Your task to perform on an android device: set default search engine in the chrome app Image 0: 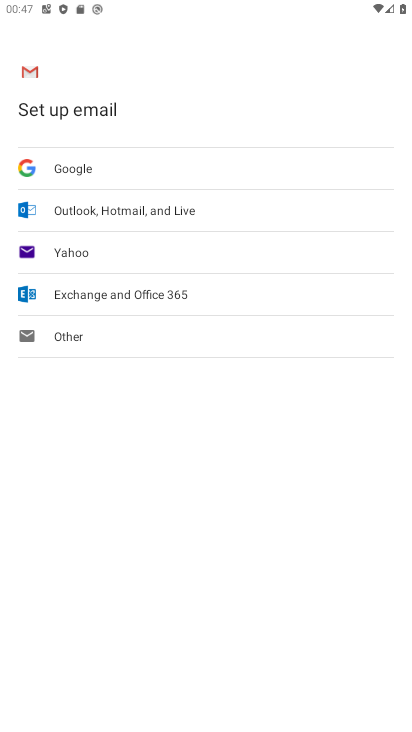
Step 0: press back button
Your task to perform on an android device: set default search engine in the chrome app Image 1: 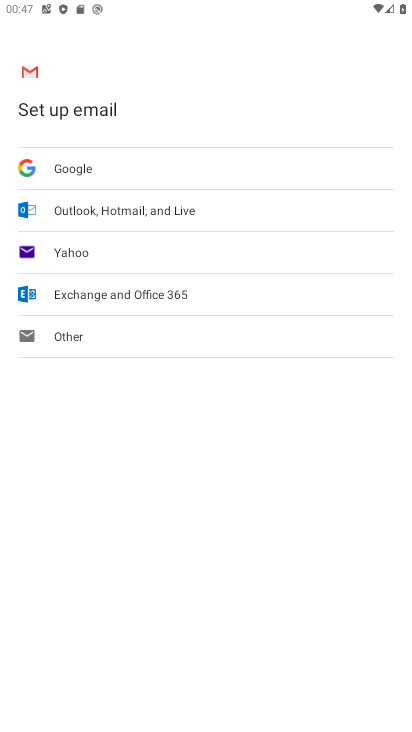
Step 1: press back button
Your task to perform on an android device: set default search engine in the chrome app Image 2: 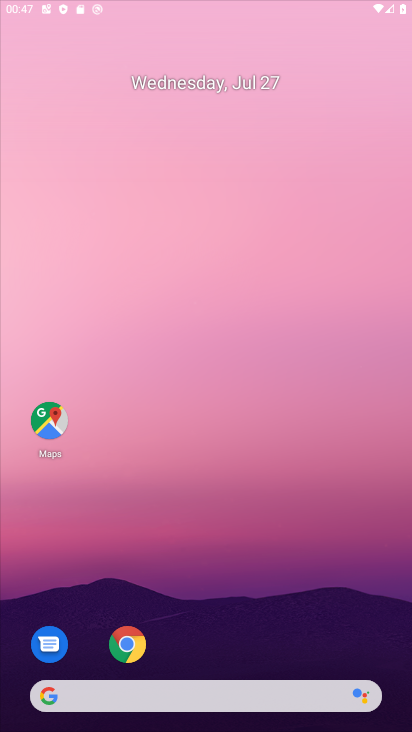
Step 2: press back button
Your task to perform on an android device: set default search engine in the chrome app Image 3: 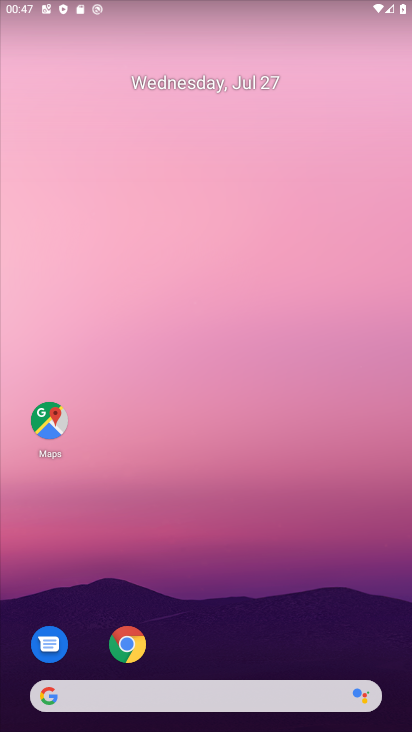
Step 3: drag from (265, 270) to (266, 184)
Your task to perform on an android device: set default search engine in the chrome app Image 4: 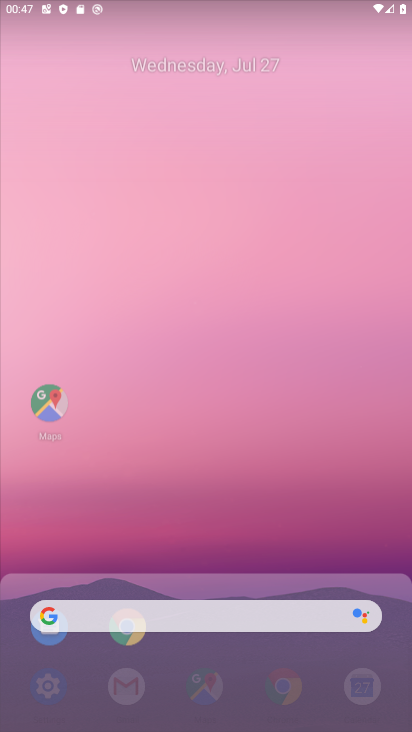
Step 4: drag from (309, 504) to (258, 186)
Your task to perform on an android device: set default search engine in the chrome app Image 5: 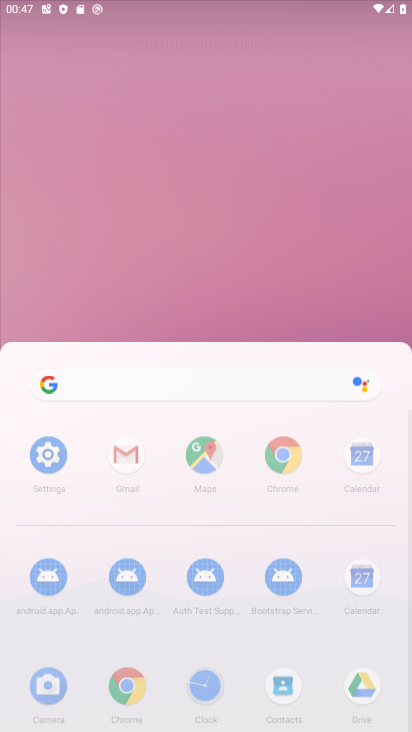
Step 5: drag from (250, 469) to (190, 158)
Your task to perform on an android device: set default search engine in the chrome app Image 6: 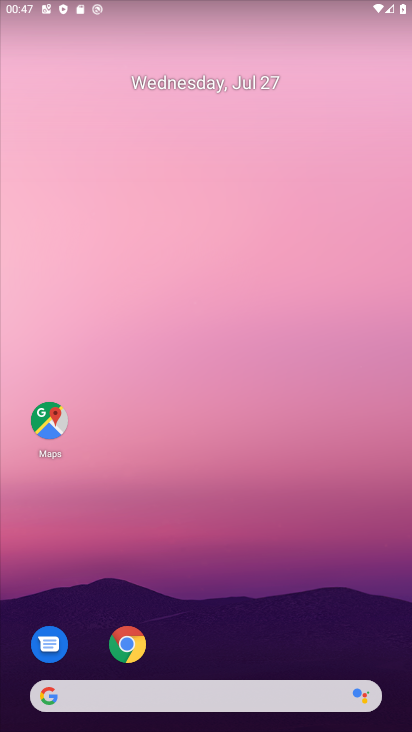
Step 6: drag from (256, 562) to (232, 303)
Your task to perform on an android device: set default search engine in the chrome app Image 7: 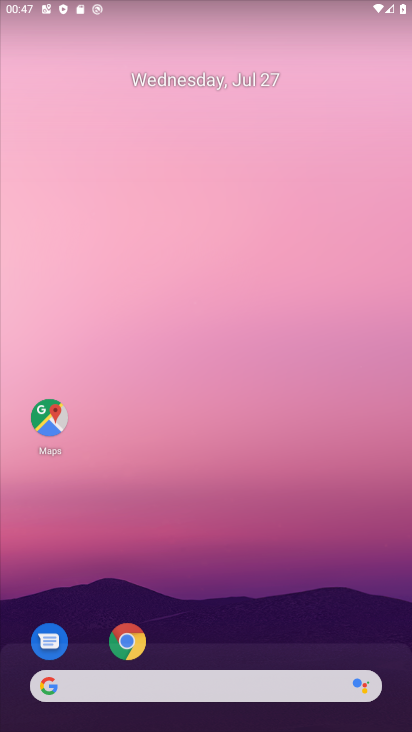
Step 7: drag from (281, 671) to (243, 338)
Your task to perform on an android device: set default search engine in the chrome app Image 8: 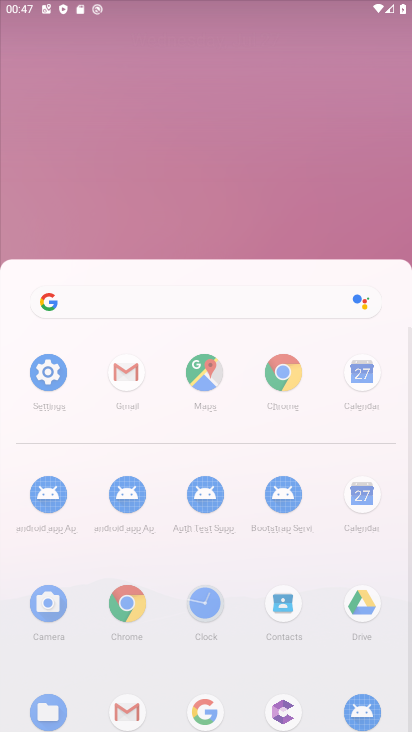
Step 8: drag from (238, 605) to (218, 177)
Your task to perform on an android device: set default search engine in the chrome app Image 9: 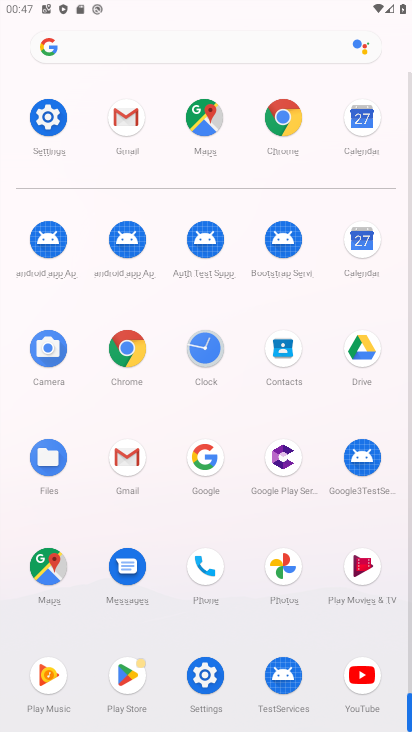
Step 9: drag from (225, 502) to (225, 261)
Your task to perform on an android device: set default search engine in the chrome app Image 10: 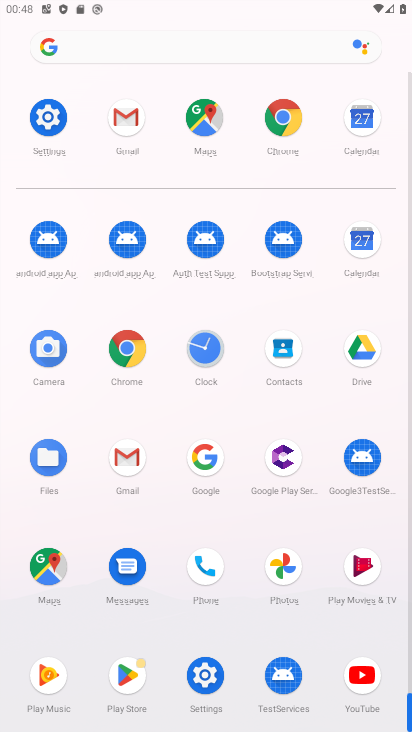
Step 10: click (282, 124)
Your task to perform on an android device: set default search engine in the chrome app Image 11: 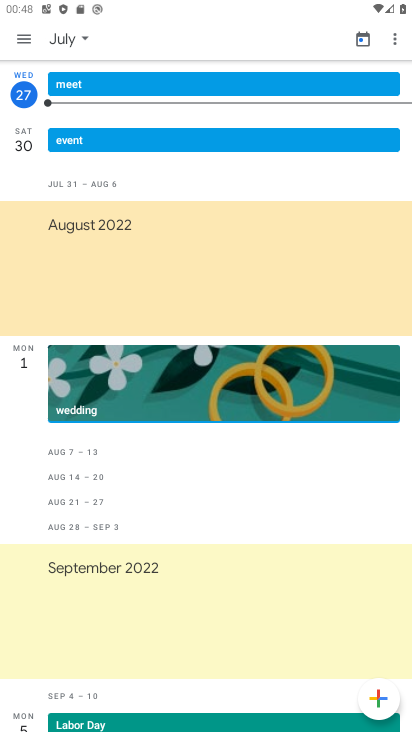
Step 11: press back button
Your task to perform on an android device: set default search engine in the chrome app Image 12: 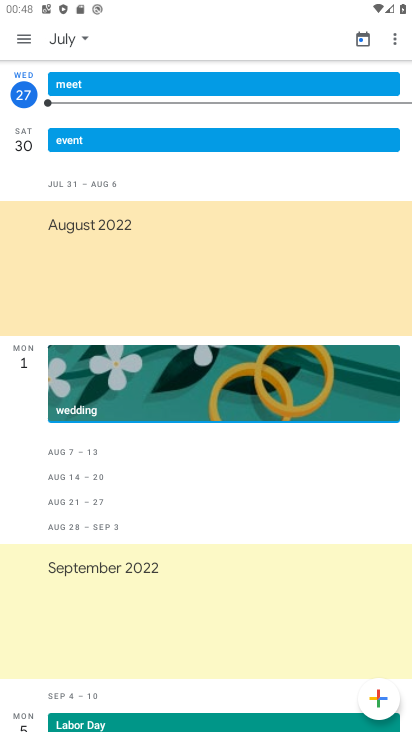
Step 12: press back button
Your task to perform on an android device: set default search engine in the chrome app Image 13: 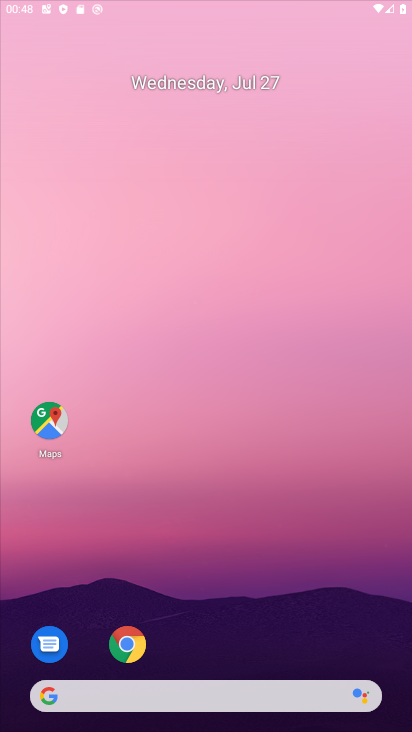
Step 13: press back button
Your task to perform on an android device: set default search engine in the chrome app Image 14: 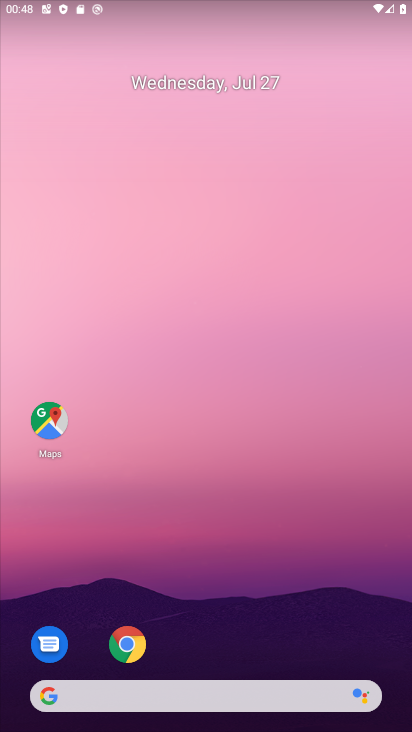
Step 14: drag from (236, 412) to (202, 125)
Your task to perform on an android device: set default search engine in the chrome app Image 15: 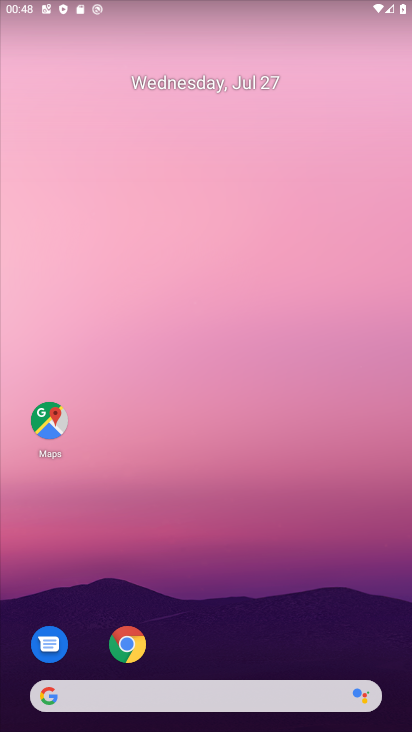
Step 15: drag from (279, 400) to (242, 141)
Your task to perform on an android device: set default search engine in the chrome app Image 16: 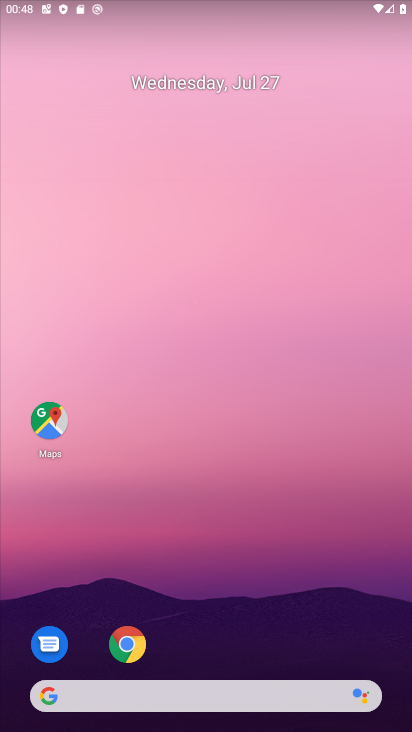
Step 16: drag from (294, 531) to (294, 147)
Your task to perform on an android device: set default search engine in the chrome app Image 17: 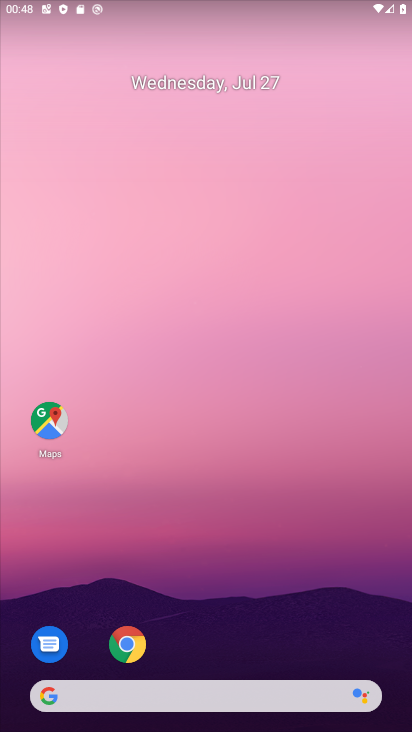
Step 17: drag from (288, 395) to (255, 113)
Your task to perform on an android device: set default search engine in the chrome app Image 18: 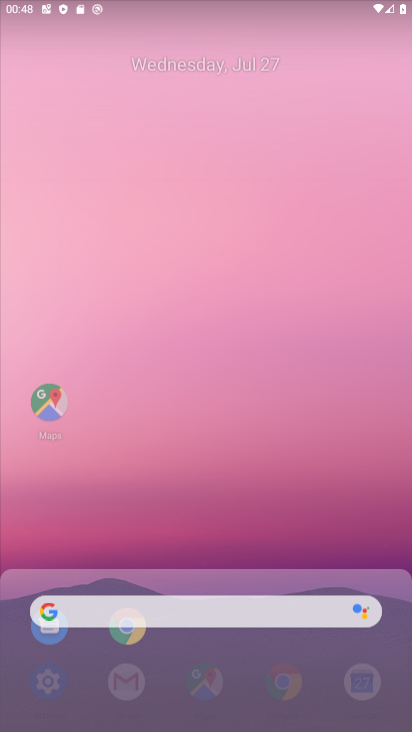
Step 18: drag from (210, 437) to (193, 119)
Your task to perform on an android device: set default search engine in the chrome app Image 19: 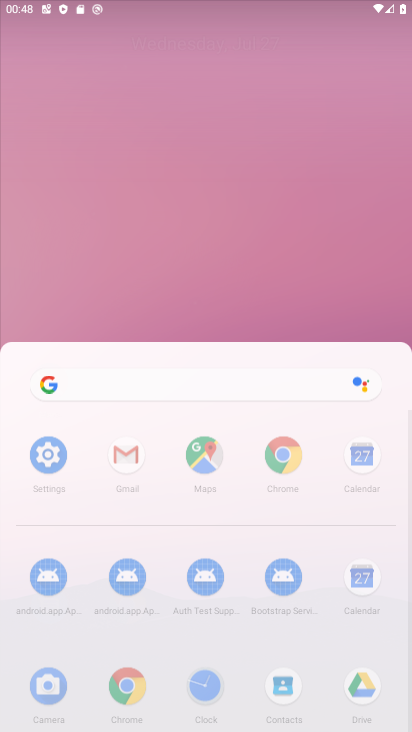
Step 19: click (164, 173)
Your task to perform on an android device: set default search engine in the chrome app Image 20: 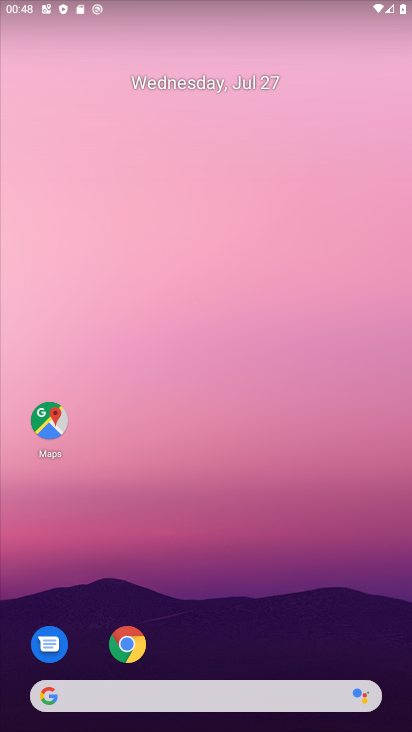
Step 20: drag from (180, 474) to (190, 118)
Your task to perform on an android device: set default search engine in the chrome app Image 21: 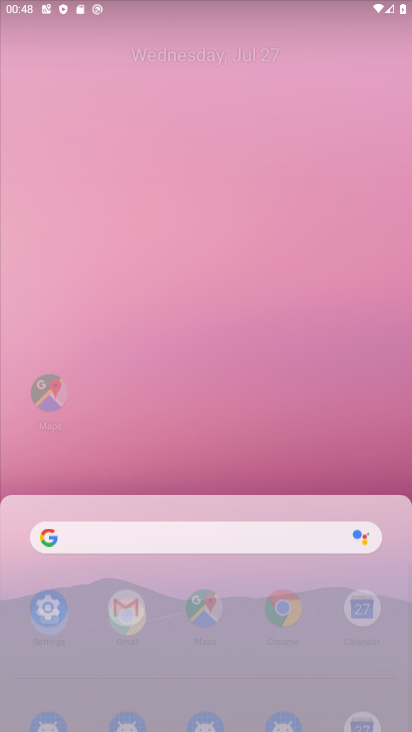
Step 21: drag from (211, 483) to (152, 101)
Your task to perform on an android device: set default search engine in the chrome app Image 22: 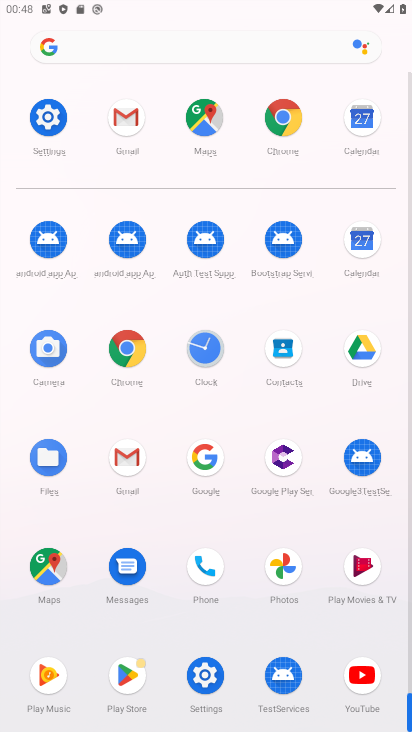
Step 22: click (281, 121)
Your task to perform on an android device: set default search engine in the chrome app Image 23: 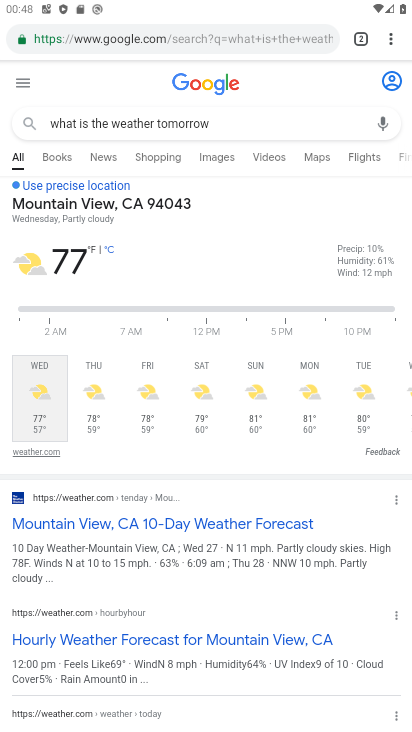
Step 23: drag from (383, 44) to (244, 433)
Your task to perform on an android device: set default search engine in the chrome app Image 24: 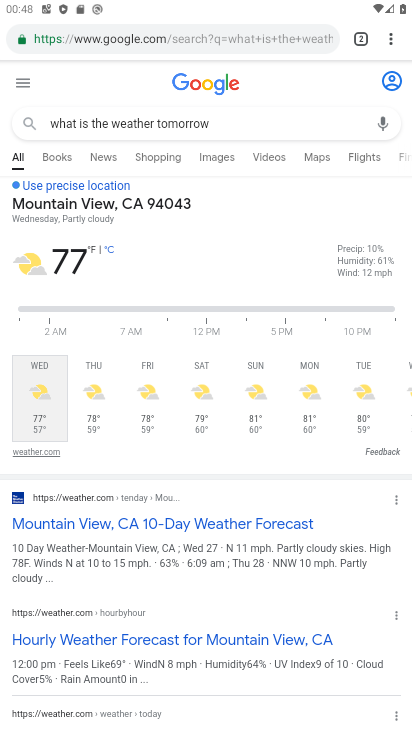
Step 24: click (244, 433)
Your task to perform on an android device: set default search engine in the chrome app Image 25: 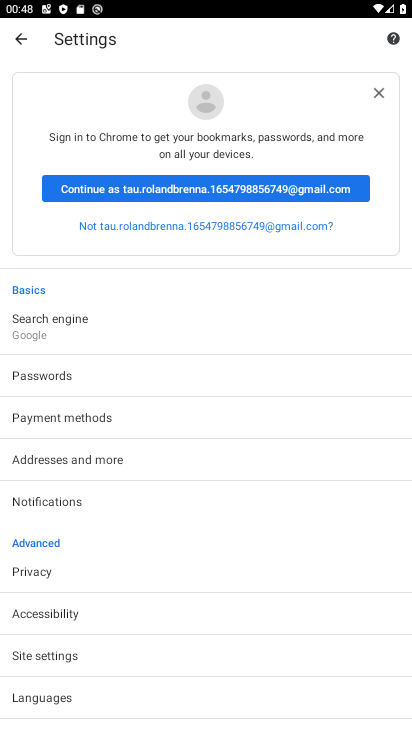
Step 25: click (41, 327)
Your task to perform on an android device: set default search engine in the chrome app Image 26: 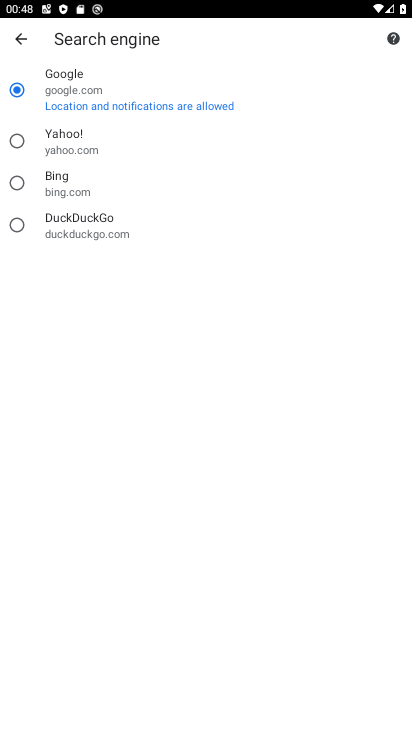
Step 26: click (23, 141)
Your task to perform on an android device: set default search engine in the chrome app Image 27: 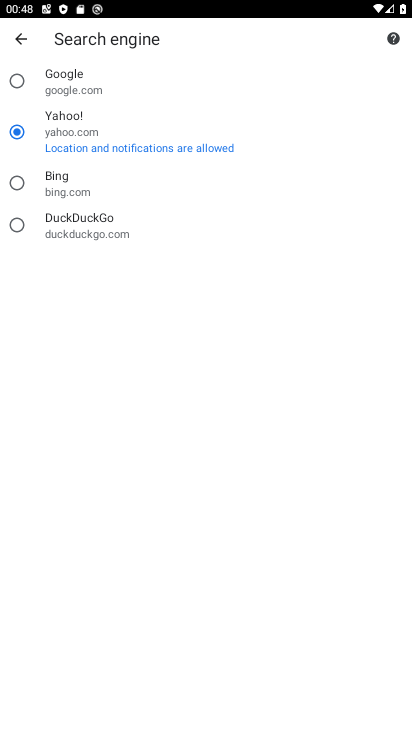
Step 27: task complete